Your task to perform on an android device: turn on notifications settings in the gmail app Image 0: 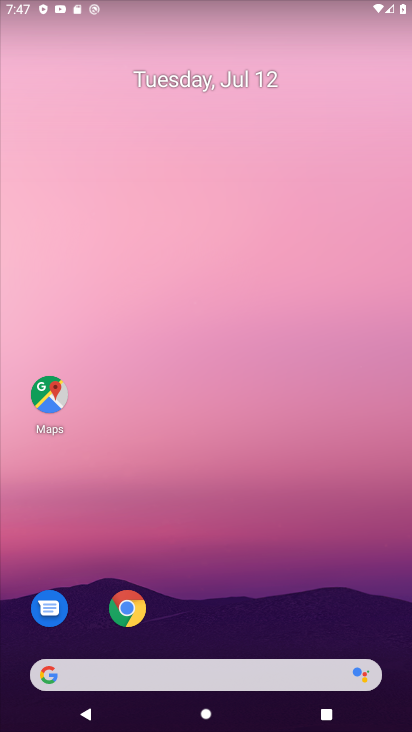
Step 0: drag from (207, 668) to (332, 286)
Your task to perform on an android device: turn on notifications settings in the gmail app Image 1: 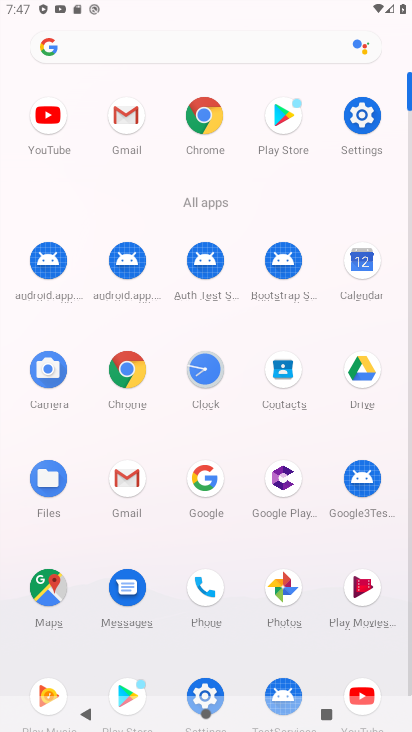
Step 1: click (131, 119)
Your task to perform on an android device: turn on notifications settings in the gmail app Image 2: 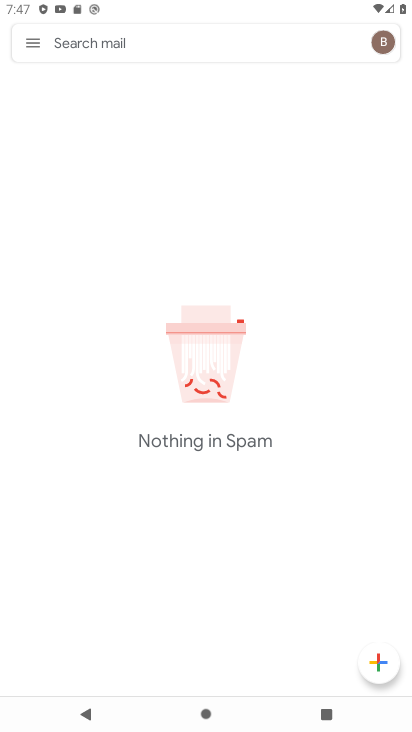
Step 2: click (35, 39)
Your task to perform on an android device: turn on notifications settings in the gmail app Image 3: 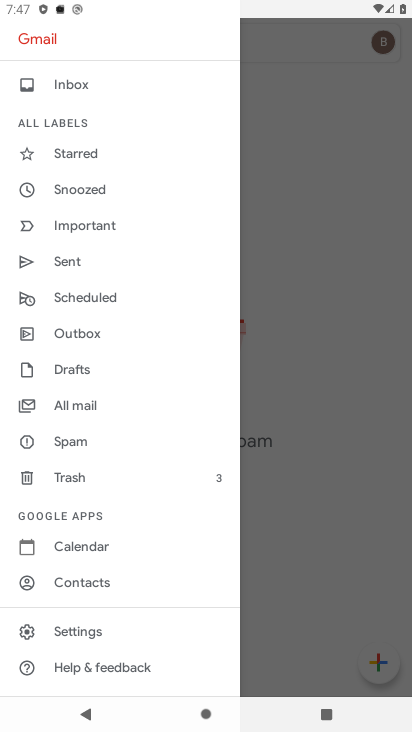
Step 3: click (88, 629)
Your task to perform on an android device: turn on notifications settings in the gmail app Image 4: 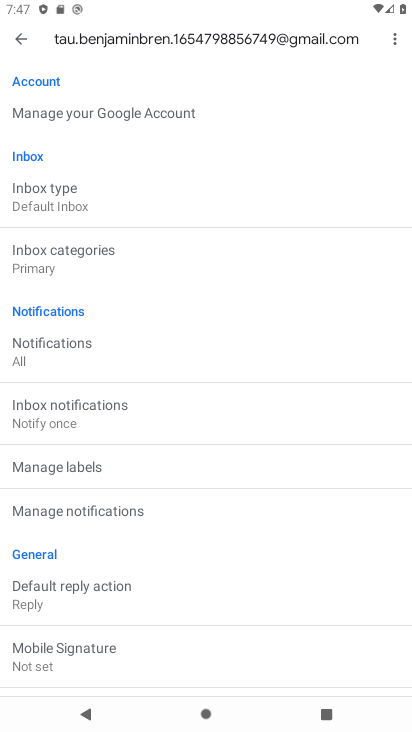
Step 4: click (24, 344)
Your task to perform on an android device: turn on notifications settings in the gmail app Image 5: 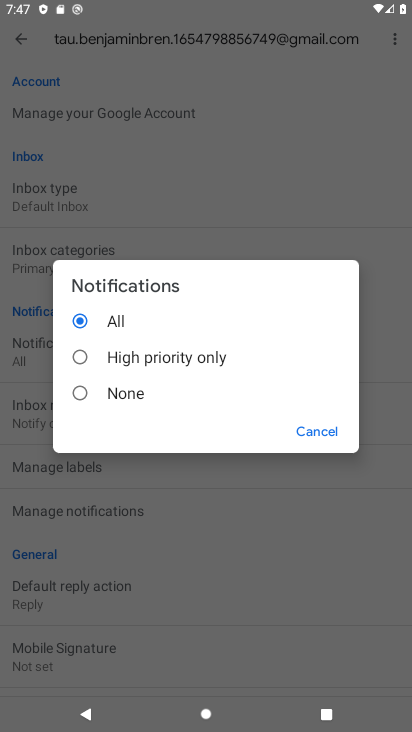
Step 5: task complete